Your task to perform on an android device: Search for hotels in Los Angeles Image 0: 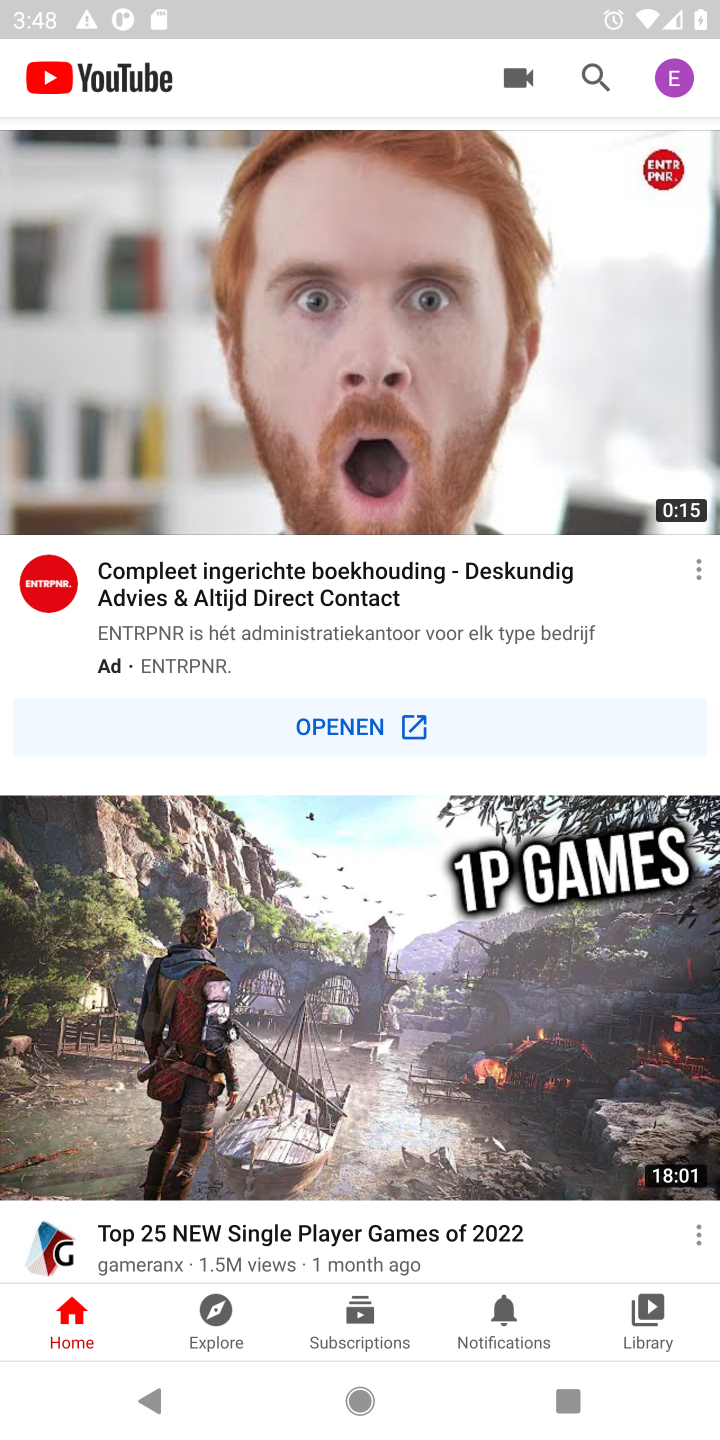
Step 0: press home button
Your task to perform on an android device: Search for hotels in Los Angeles Image 1: 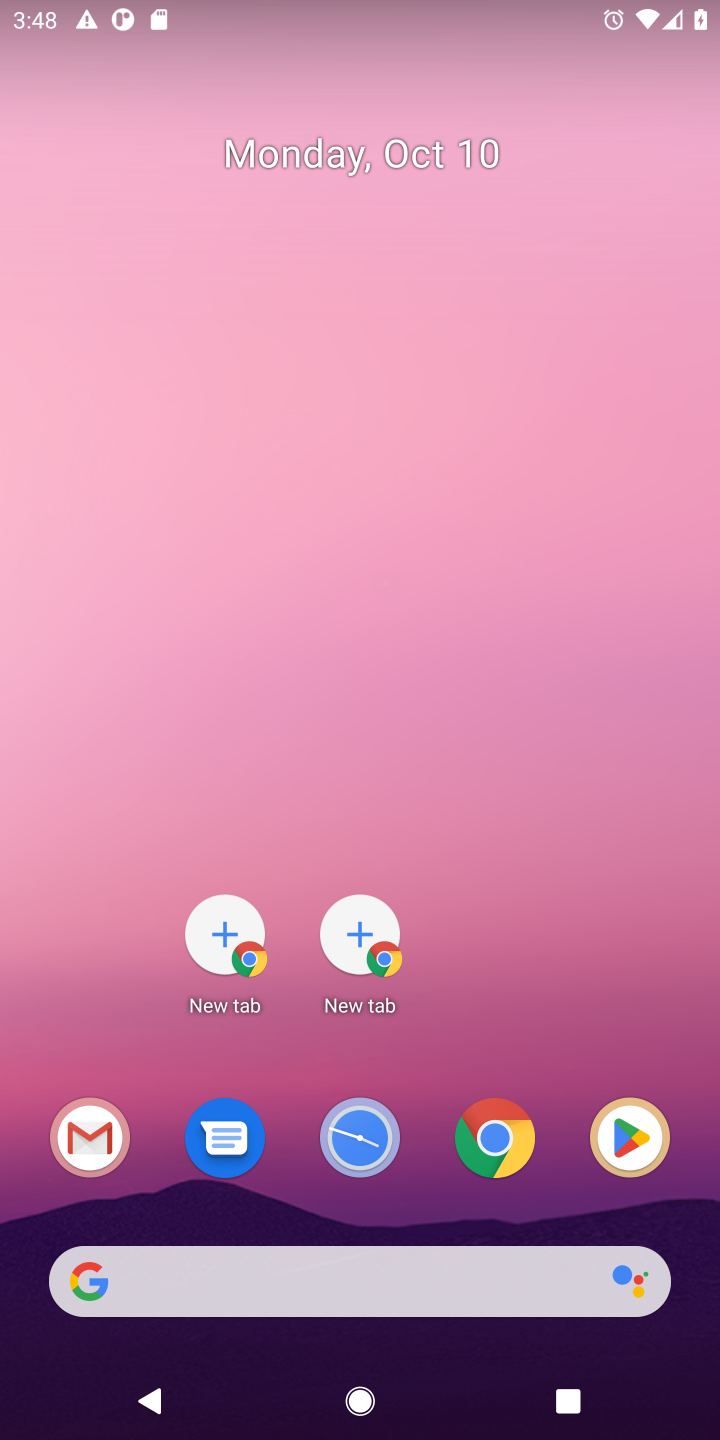
Step 1: click (514, 1143)
Your task to perform on an android device: Search for hotels in Los Angeles Image 2: 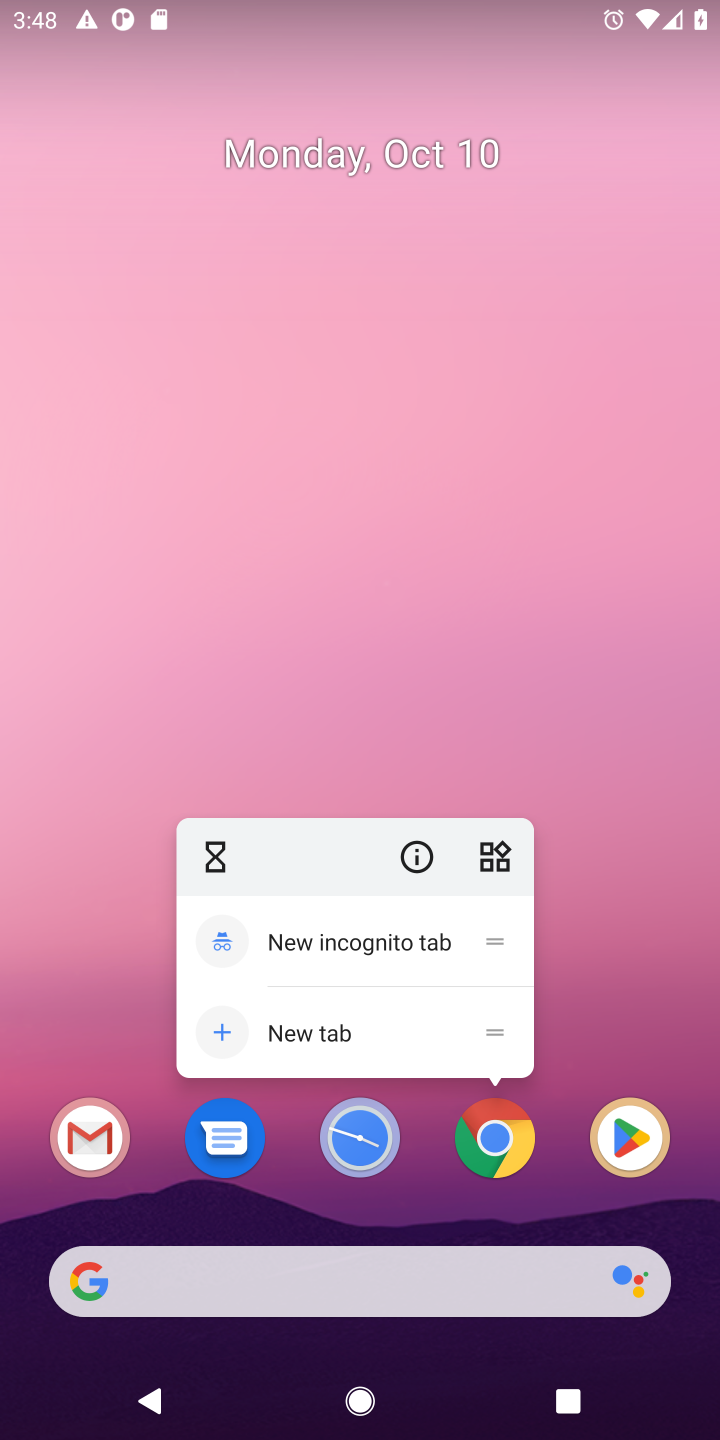
Step 2: click (481, 1158)
Your task to perform on an android device: Search for hotels in Los Angeles Image 3: 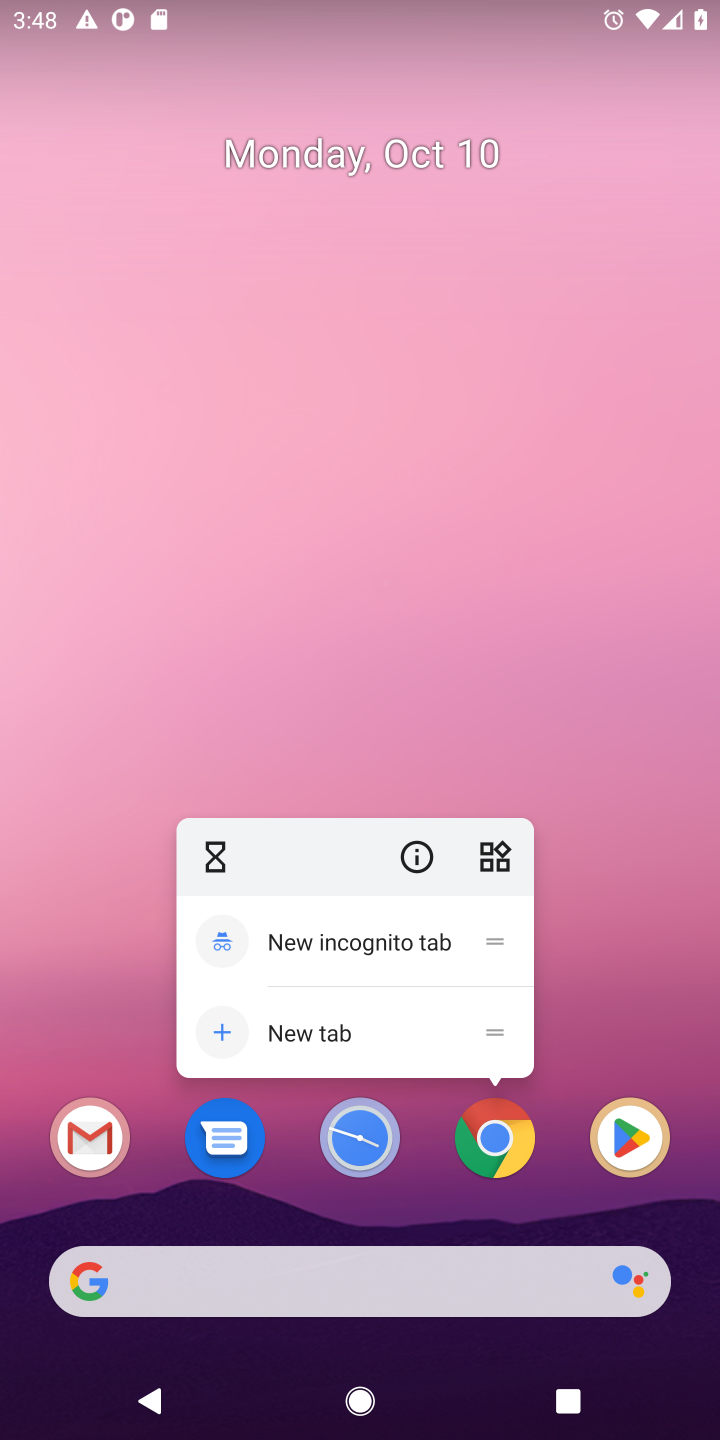
Step 3: click (487, 1161)
Your task to perform on an android device: Search for hotels in Los Angeles Image 4: 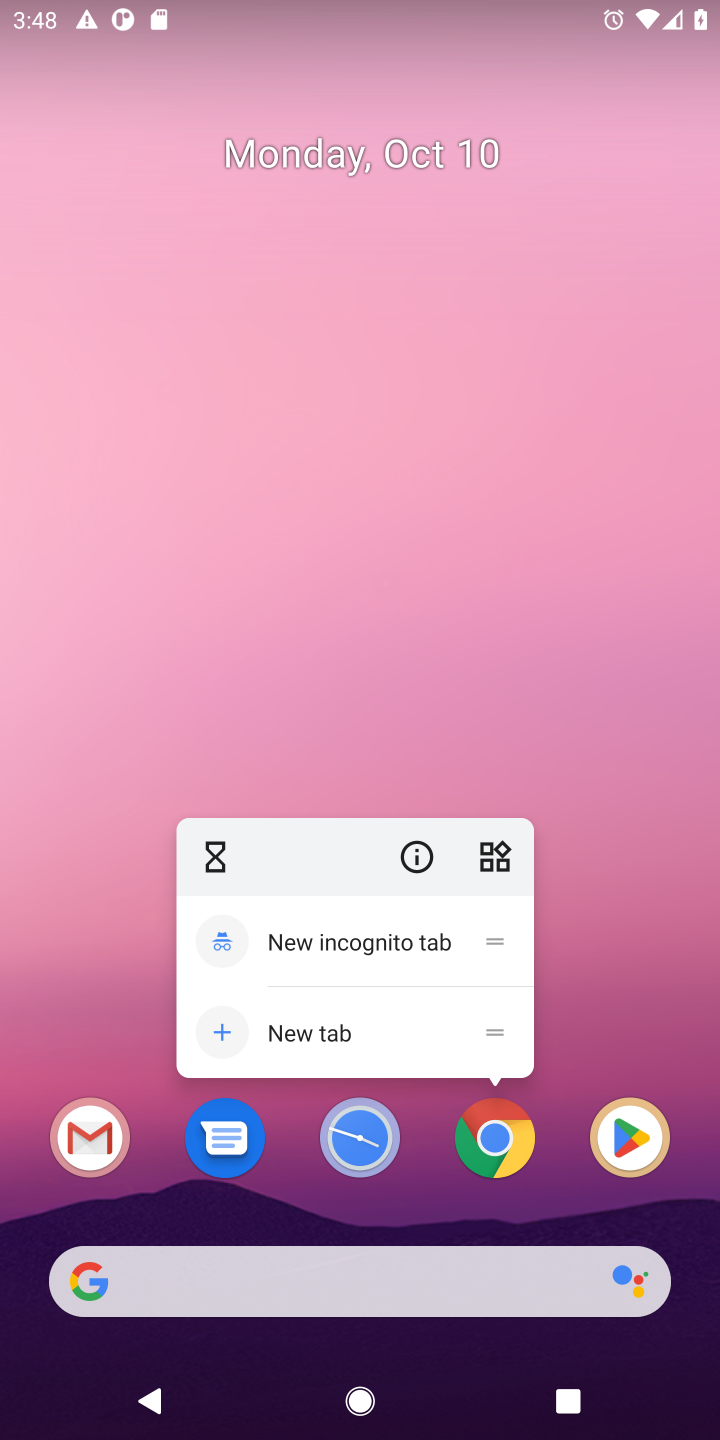
Step 4: click (507, 1165)
Your task to perform on an android device: Search for hotels in Los Angeles Image 5: 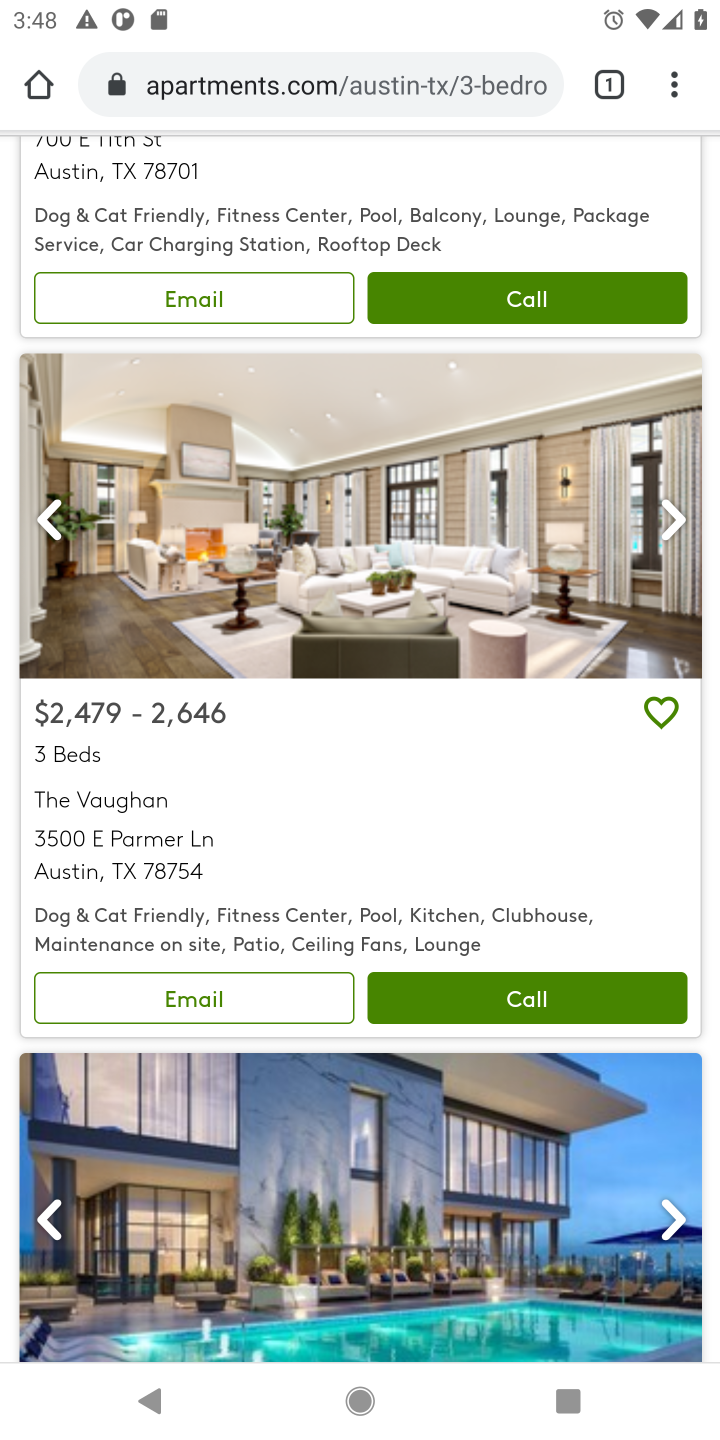
Step 5: click (452, 93)
Your task to perform on an android device: Search for hotels in Los Angeles Image 6: 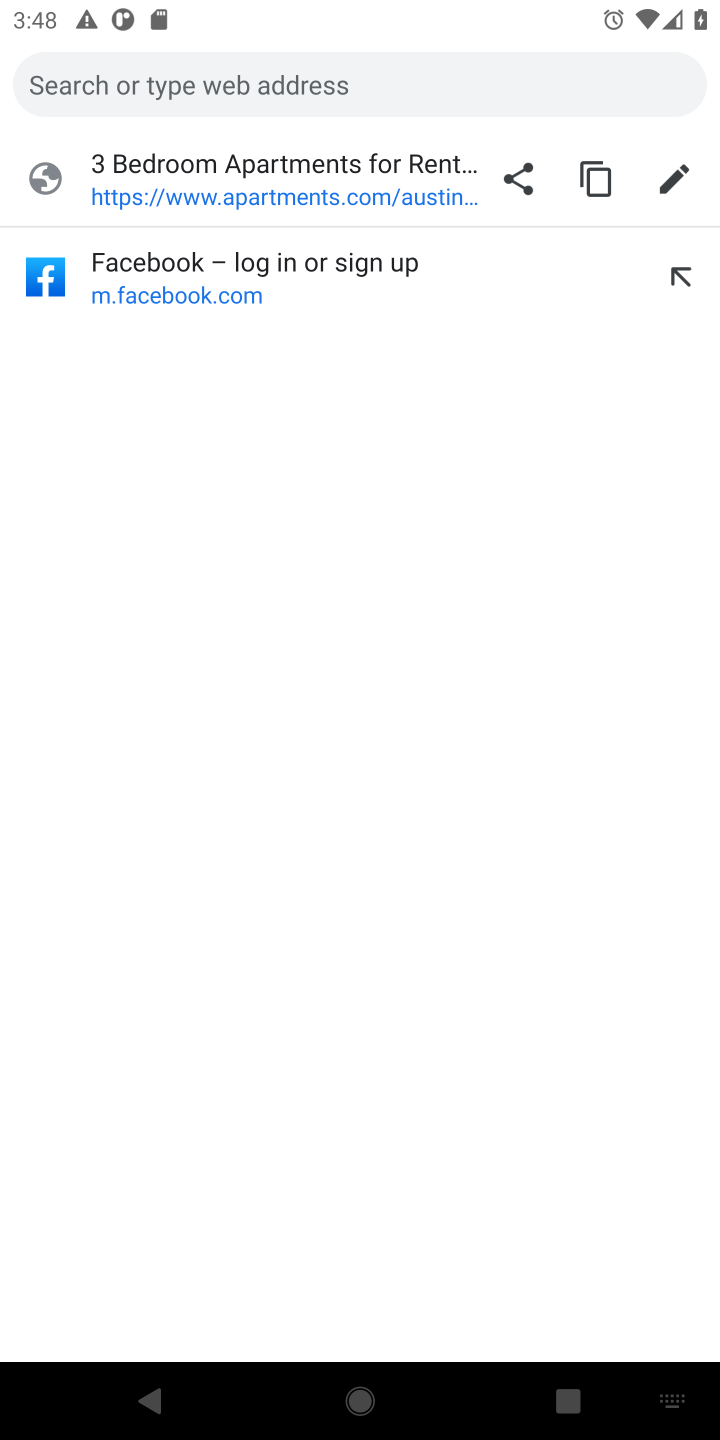
Step 6: type "hotels in Los Angeles"
Your task to perform on an android device: Search for hotels in Los Angeles Image 7: 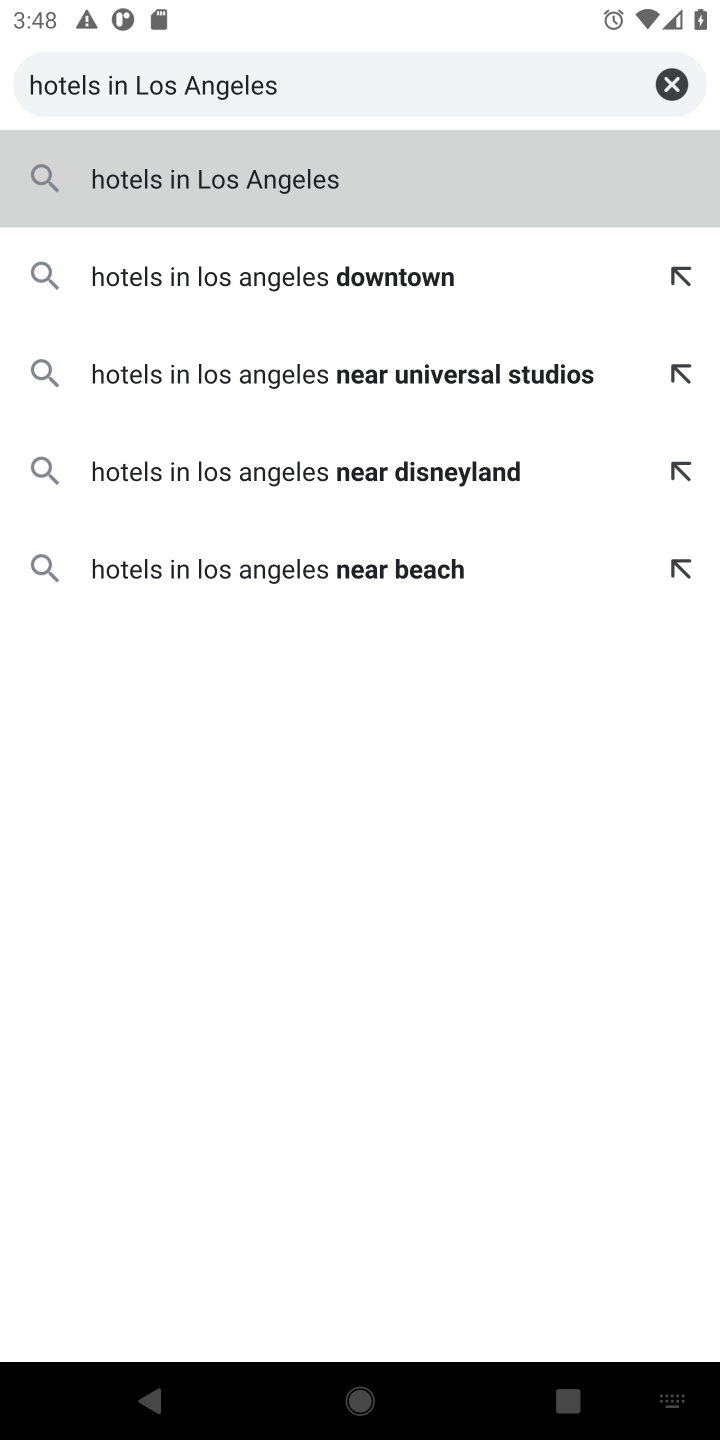
Step 7: type ""
Your task to perform on an android device: Search for hotels in Los Angeles Image 8: 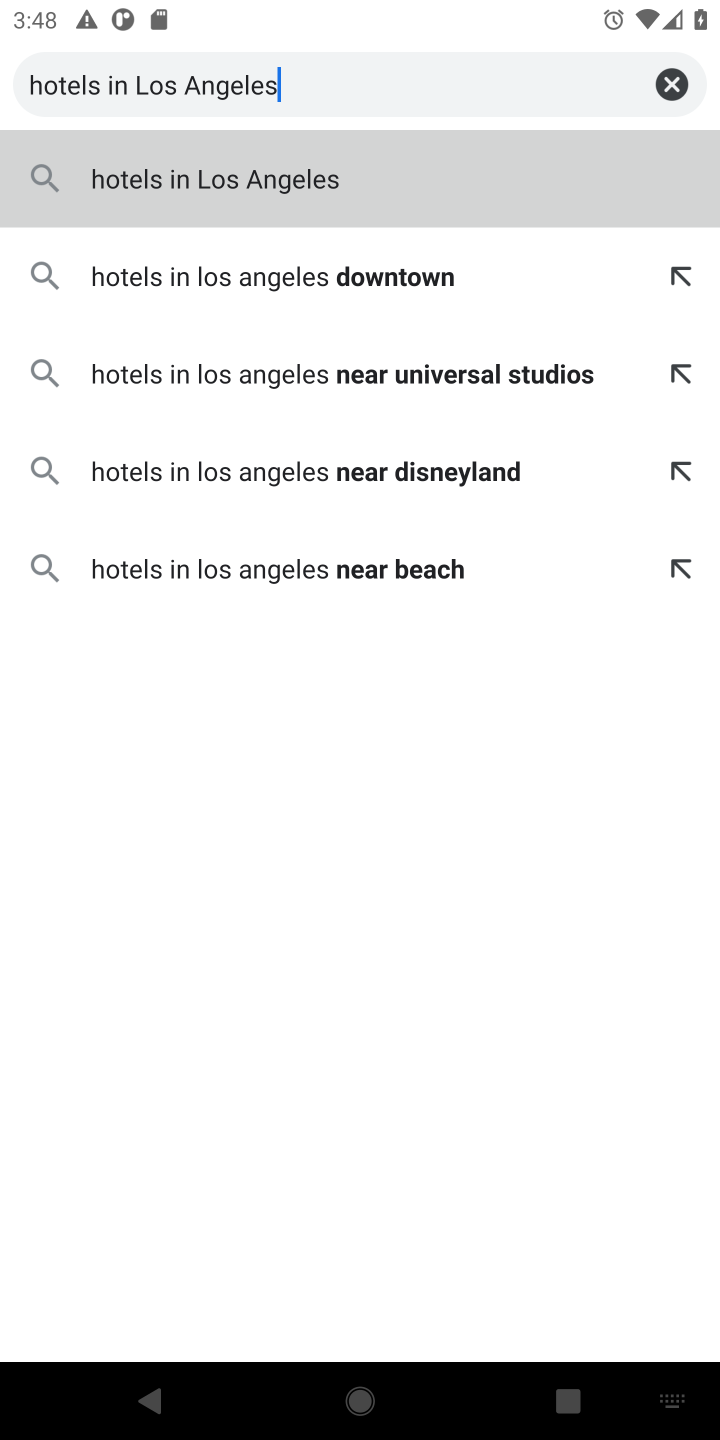
Step 8: press enter
Your task to perform on an android device: Search for hotels in Los Angeles Image 9: 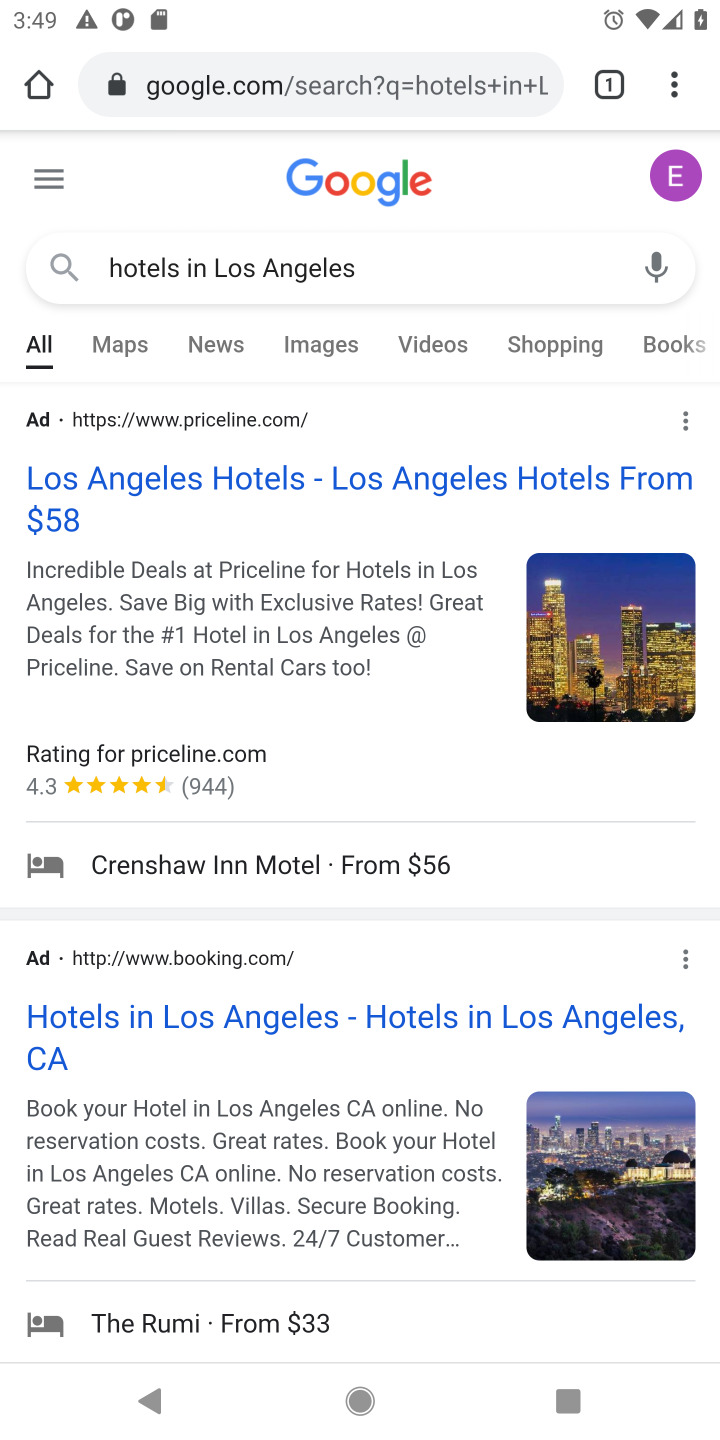
Step 9: click (313, 1012)
Your task to perform on an android device: Search for hotels in Los Angeles Image 10: 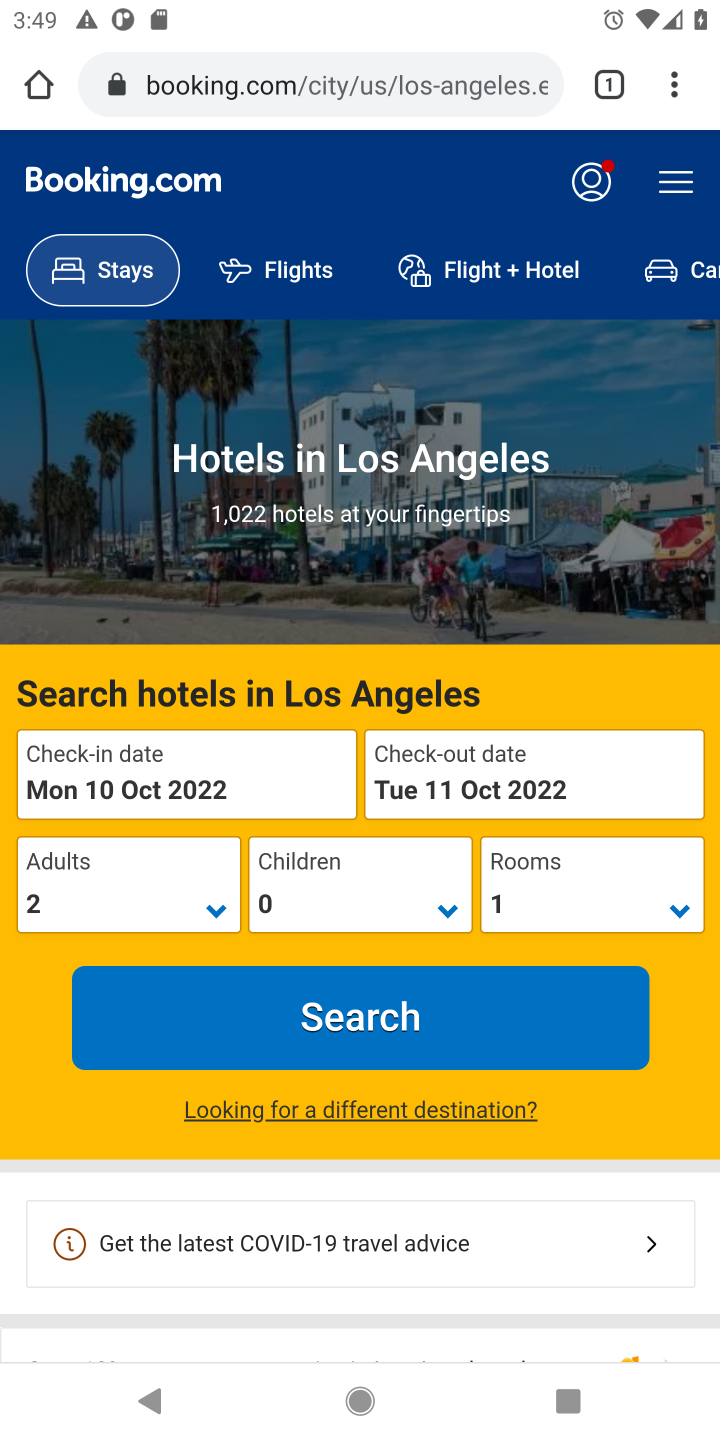
Step 10: task complete